Your task to perform on an android device: Open the map Image 0: 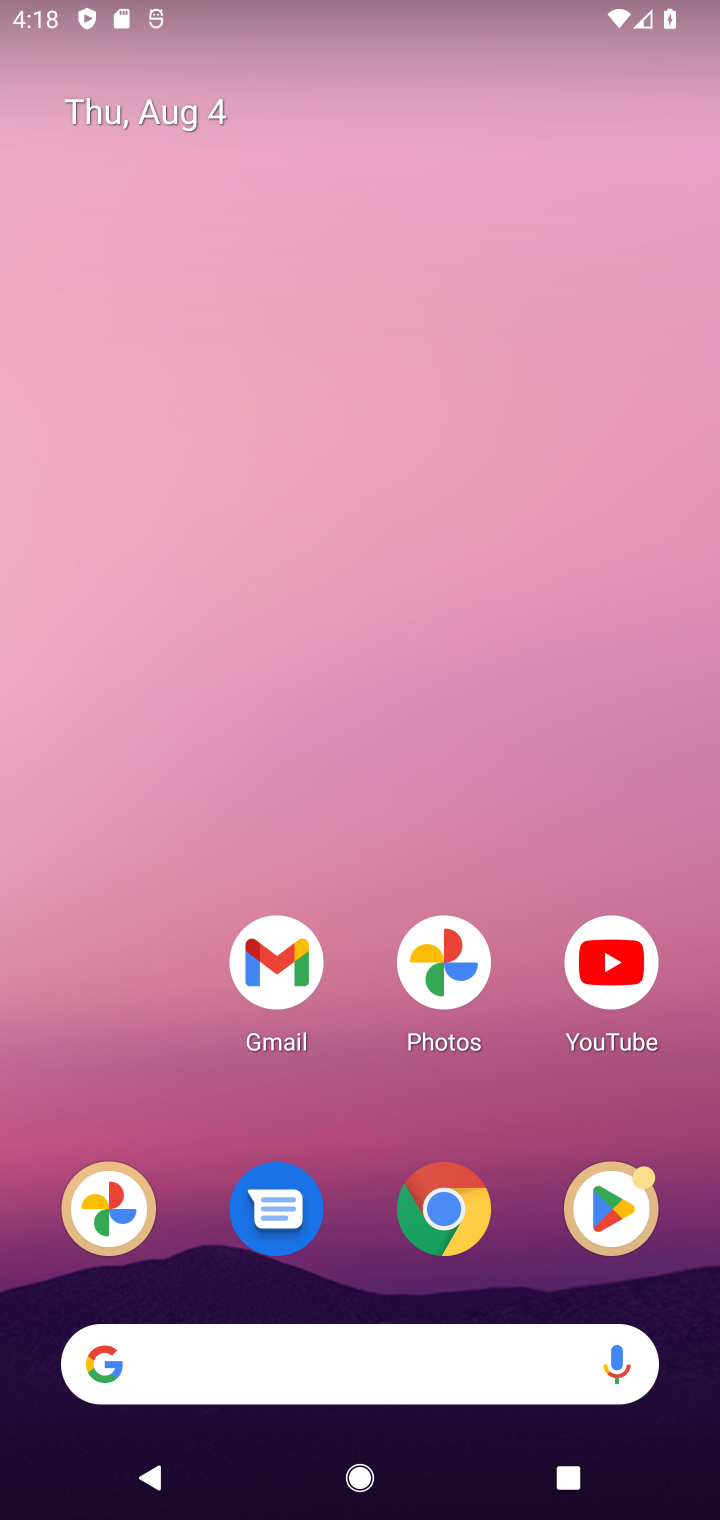
Step 0: drag from (323, 1238) to (348, 434)
Your task to perform on an android device: Open the map Image 1: 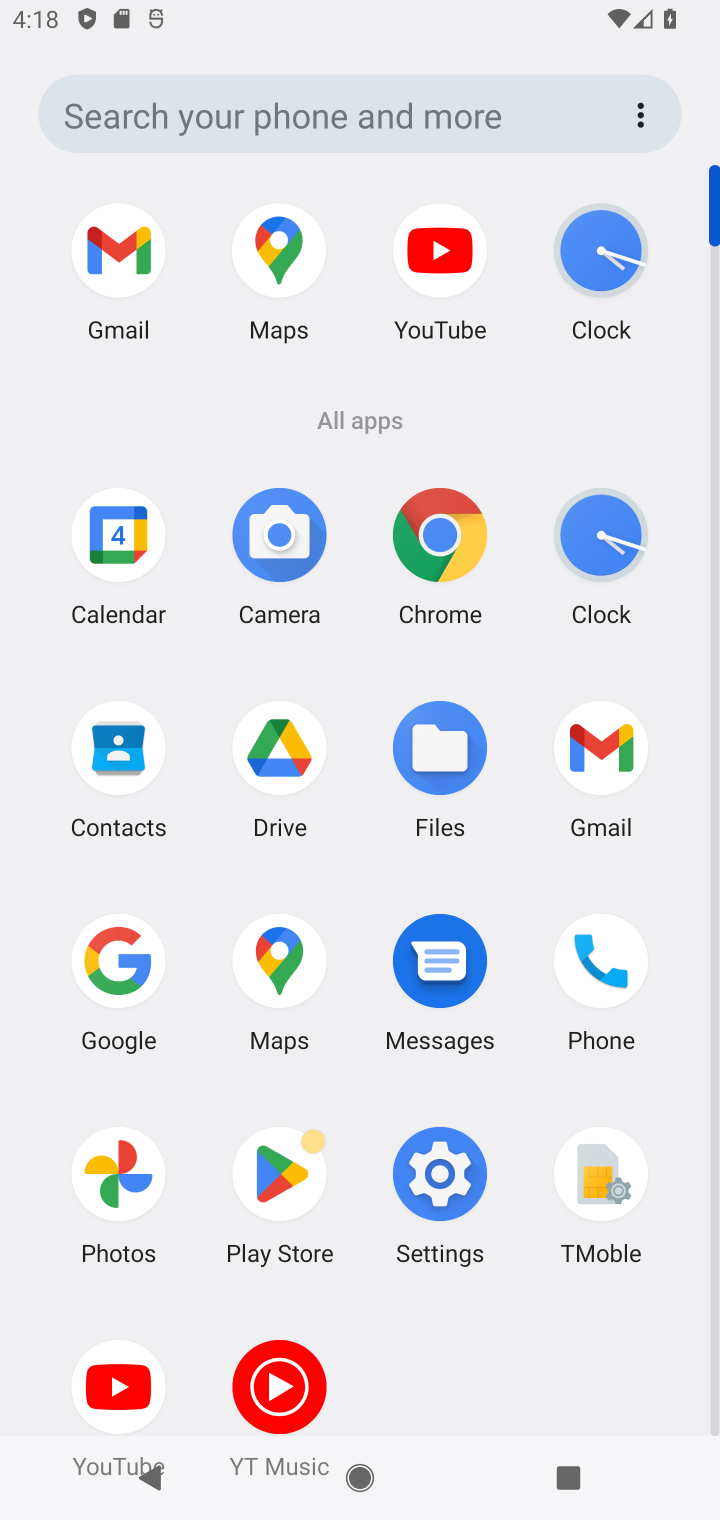
Step 1: click (283, 968)
Your task to perform on an android device: Open the map Image 2: 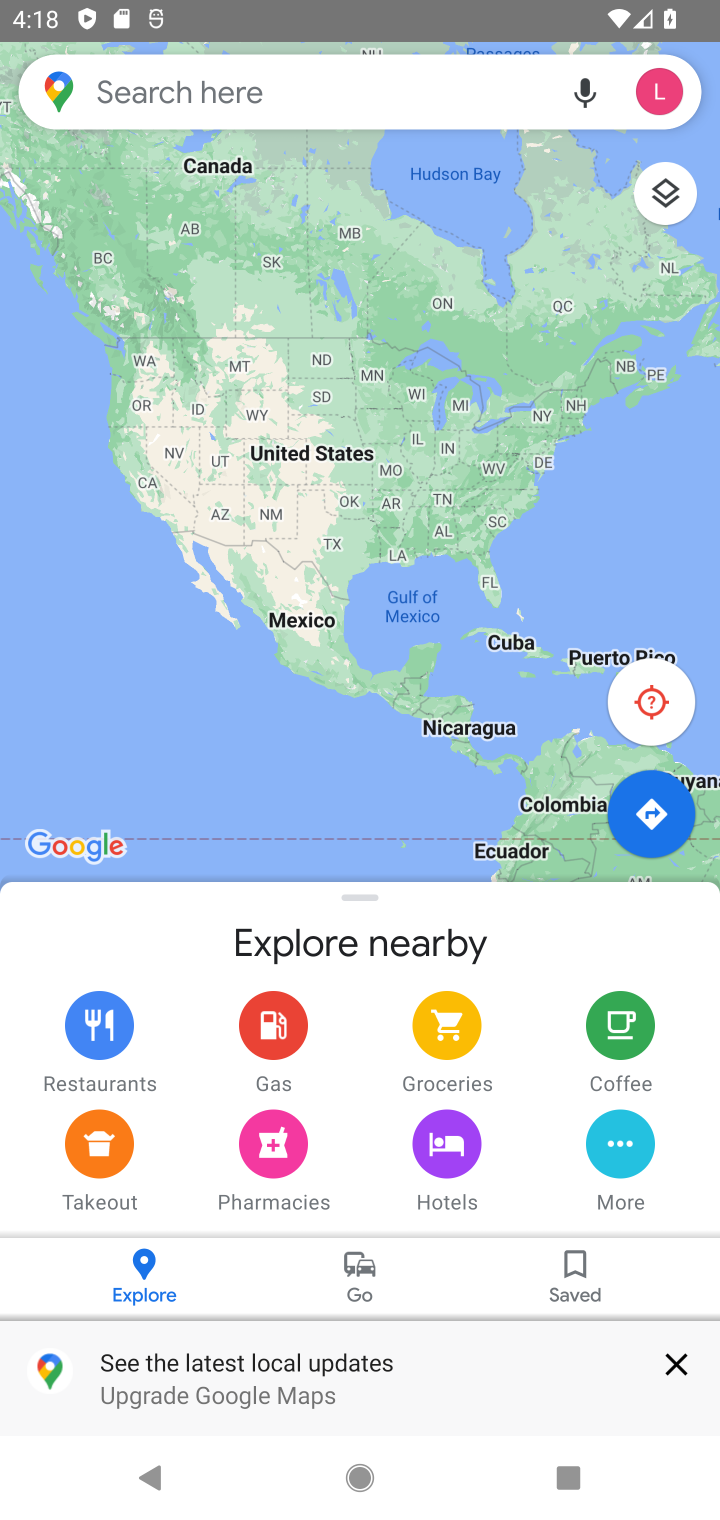
Step 2: task complete